Your task to perform on an android device: turn off javascript in the chrome app Image 0: 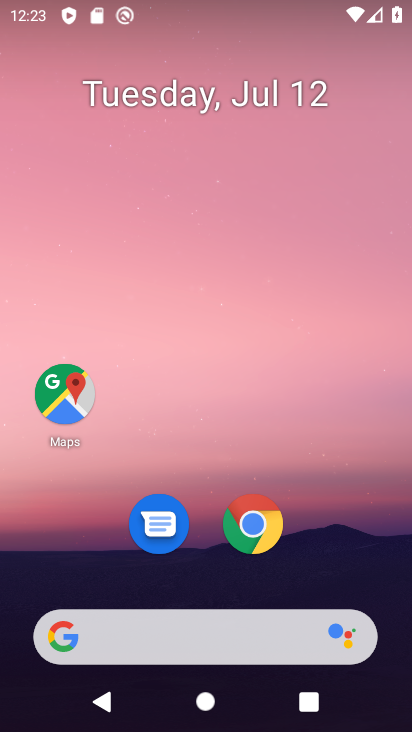
Step 0: click (247, 514)
Your task to perform on an android device: turn off javascript in the chrome app Image 1: 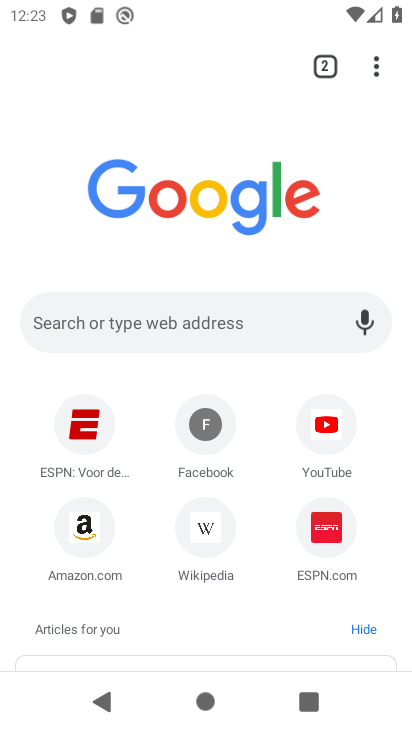
Step 1: click (376, 69)
Your task to perform on an android device: turn off javascript in the chrome app Image 2: 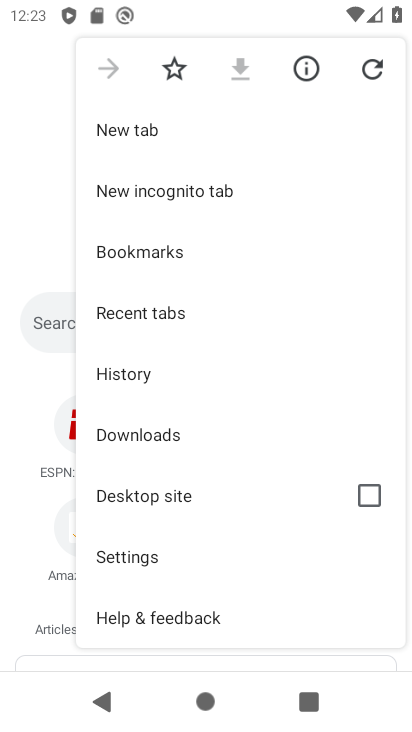
Step 2: click (144, 558)
Your task to perform on an android device: turn off javascript in the chrome app Image 3: 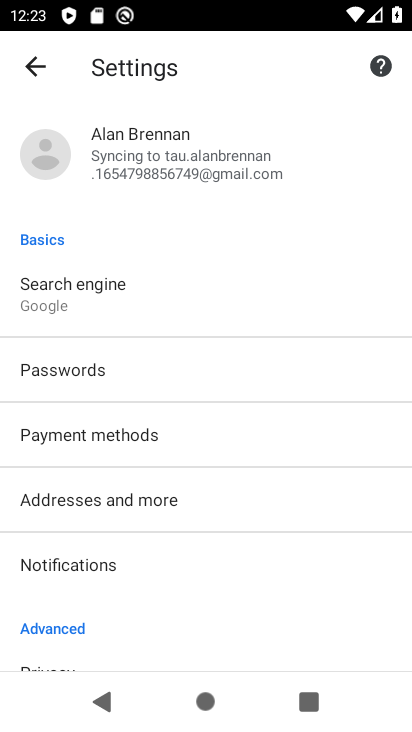
Step 3: drag from (204, 605) to (186, 308)
Your task to perform on an android device: turn off javascript in the chrome app Image 4: 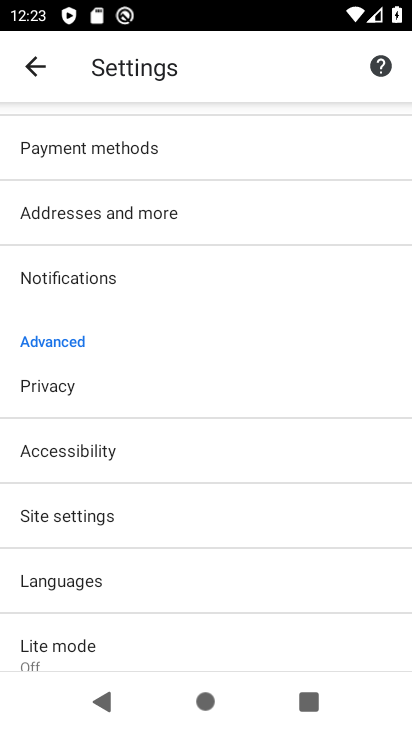
Step 4: click (106, 509)
Your task to perform on an android device: turn off javascript in the chrome app Image 5: 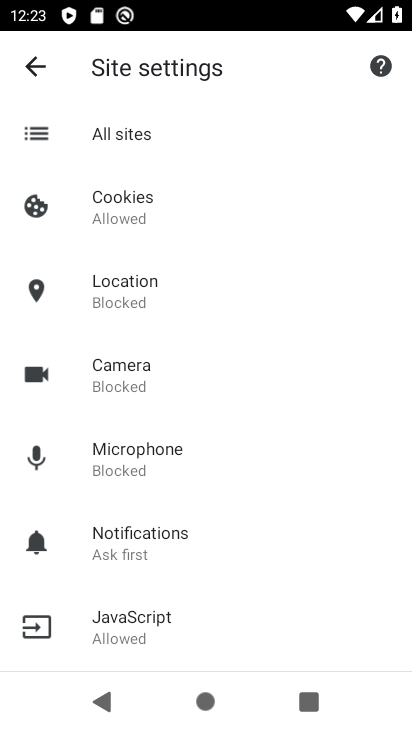
Step 5: click (178, 629)
Your task to perform on an android device: turn off javascript in the chrome app Image 6: 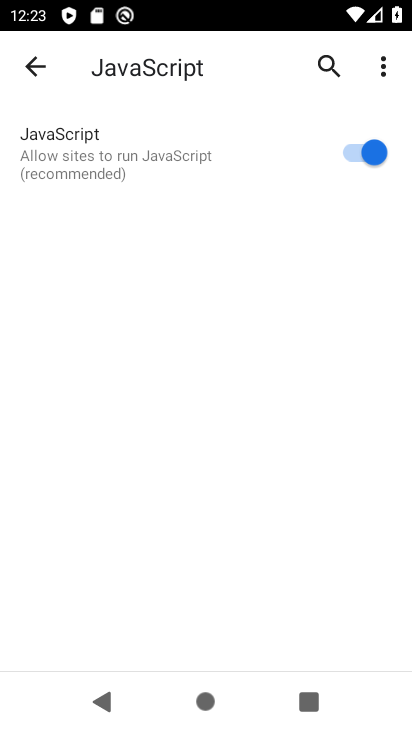
Step 6: click (370, 154)
Your task to perform on an android device: turn off javascript in the chrome app Image 7: 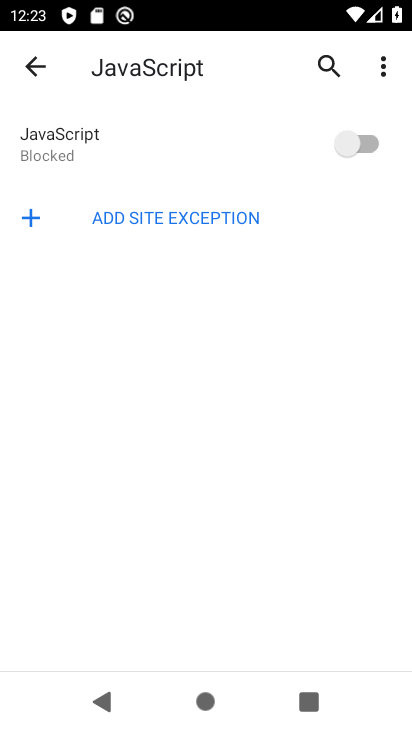
Step 7: task complete